Your task to perform on an android device: turn on improve location accuracy Image 0: 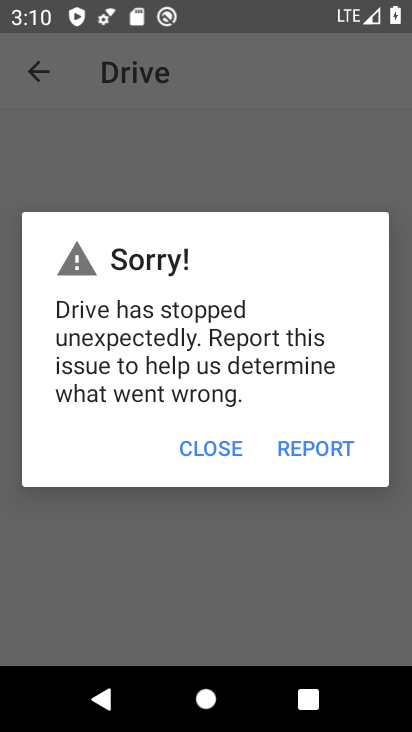
Step 0: click (227, 443)
Your task to perform on an android device: turn on improve location accuracy Image 1: 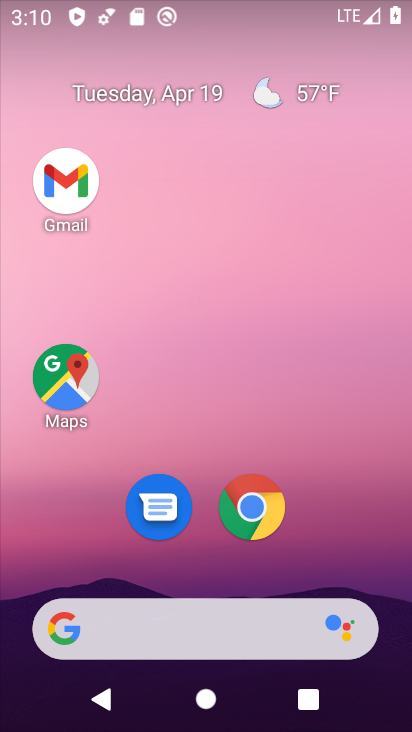
Step 1: drag from (262, 579) to (286, 140)
Your task to perform on an android device: turn on improve location accuracy Image 2: 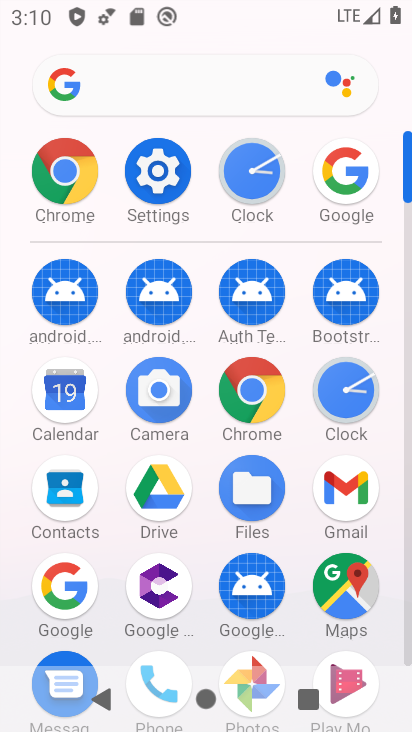
Step 2: click (139, 175)
Your task to perform on an android device: turn on improve location accuracy Image 3: 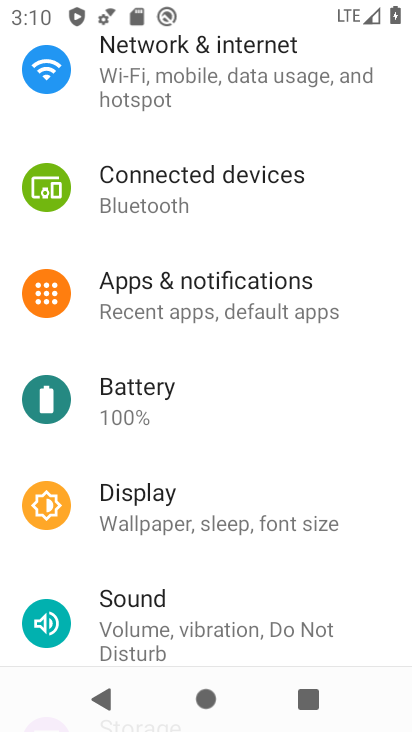
Step 3: drag from (308, 580) to (330, 136)
Your task to perform on an android device: turn on improve location accuracy Image 4: 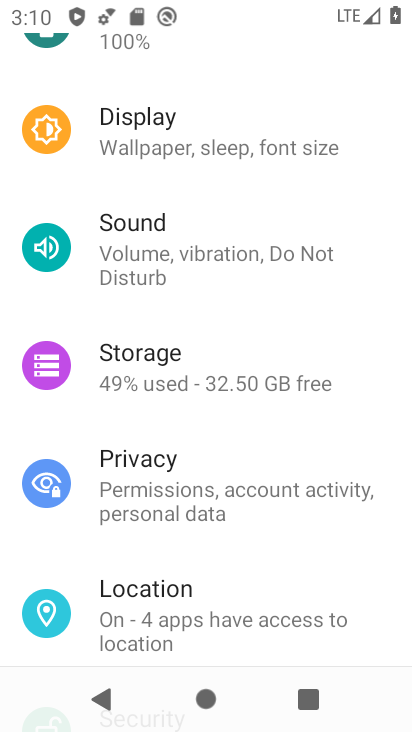
Step 4: click (236, 588)
Your task to perform on an android device: turn on improve location accuracy Image 5: 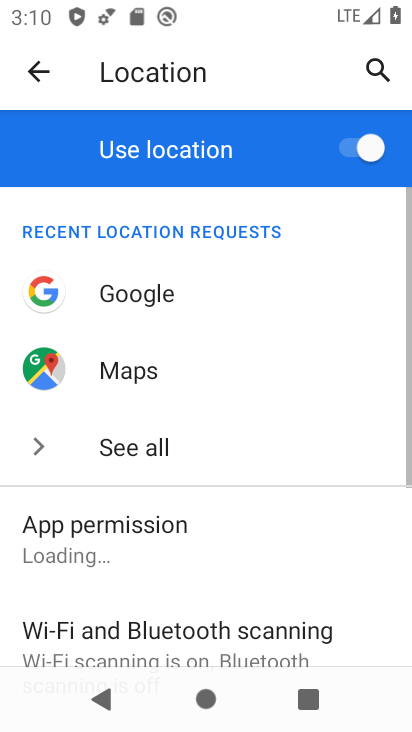
Step 5: drag from (225, 573) to (247, 177)
Your task to perform on an android device: turn on improve location accuracy Image 6: 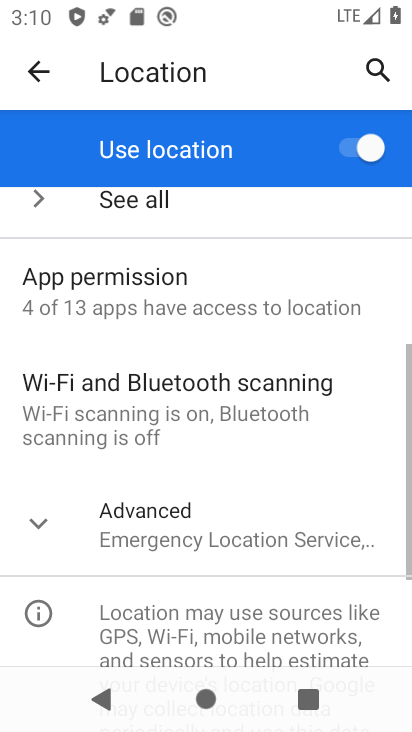
Step 6: click (165, 522)
Your task to perform on an android device: turn on improve location accuracy Image 7: 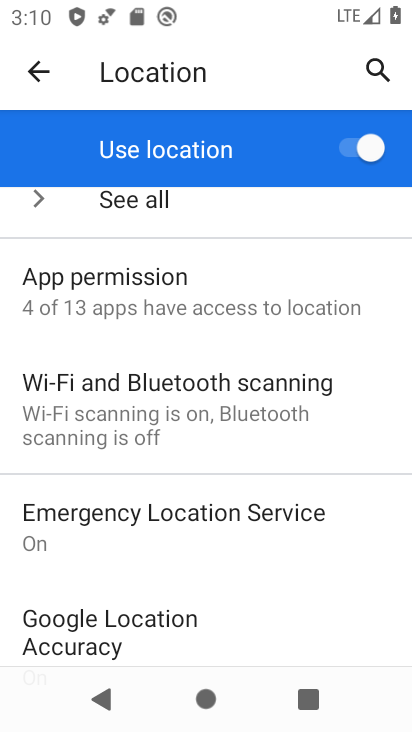
Step 7: click (180, 608)
Your task to perform on an android device: turn on improve location accuracy Image 8: 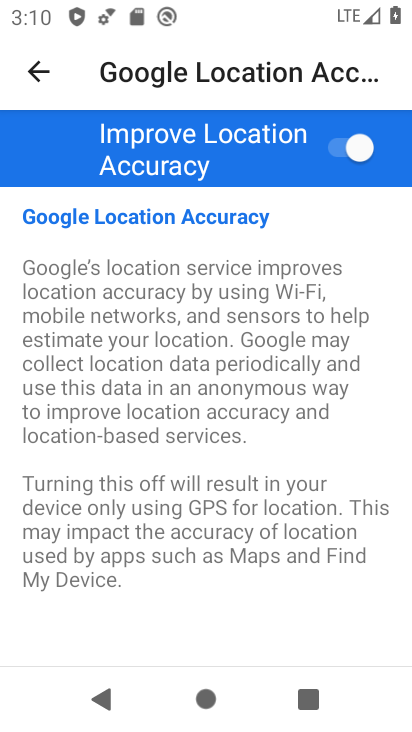
Step 8: click (368, 138)
Your task to perform on an android device: turn on improve location accuracy Image 9: 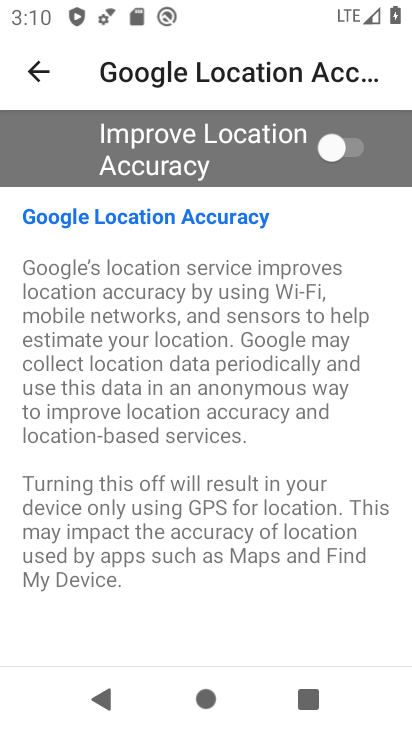
Step 9: task complete